Your task to perform on an android device: remove spam from my inbox in the gmail app Image 0: 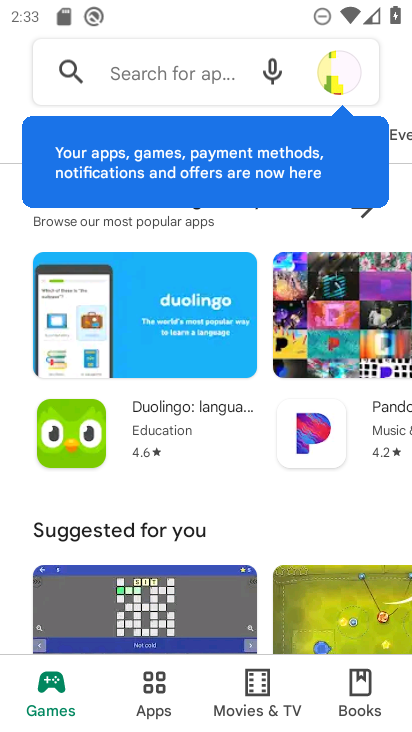
Step 0: drag from (194, 595) to (186, 219)
Your task to perform on an android device: remove spam from my inbox in the gmail app Image 1: 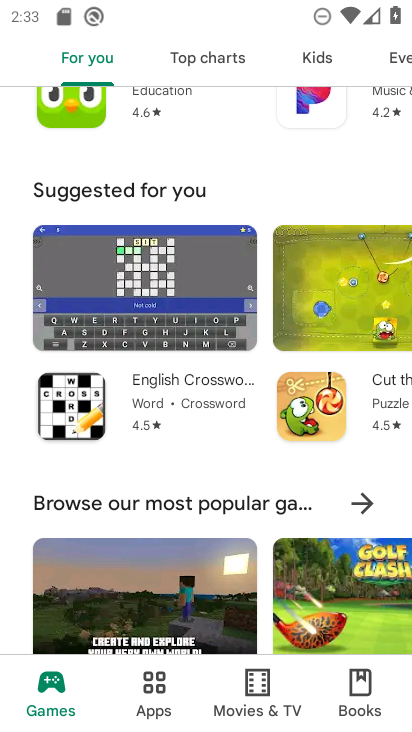
Step 1: drag from (187, 194) to (298, 633)
Your task to perform on an android device: remove spam from my inbox in the gmail app Image 2: 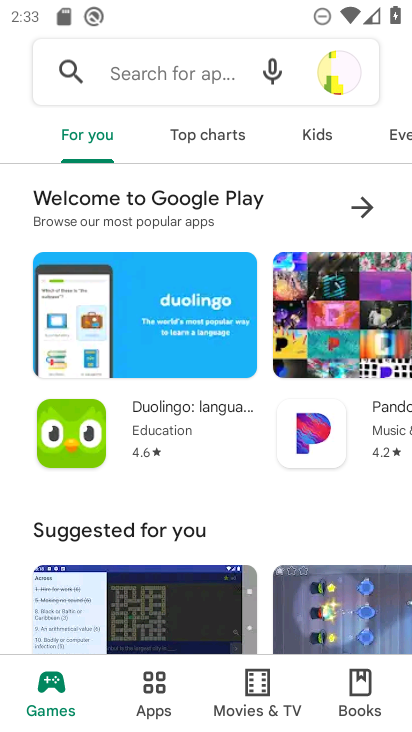
Step 2: press home button
Your task to perform on an android device: remove spam from my inbox in the gmail app Image 3: 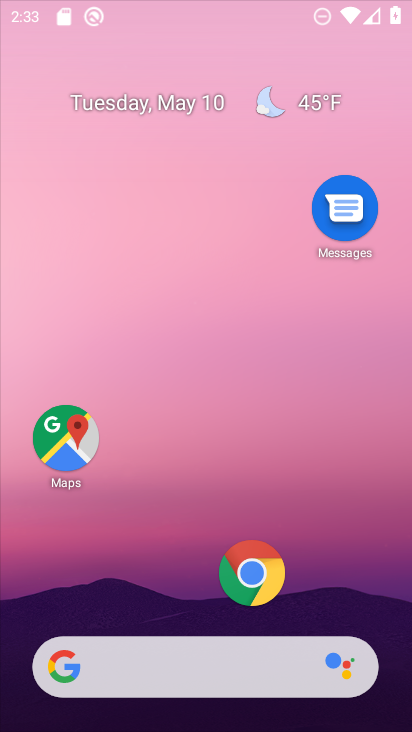
Step 3: drag from (188, 644) to (249, 244)
Your task to perform on an android device: remove spam from my inbox in the gmail app Image 4: 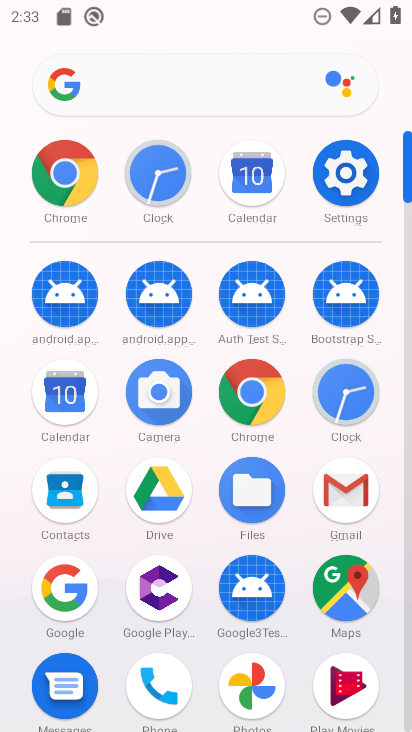
Step 4: click (334, 507)
Your task to perform on an android device: remove spam from my inbox in the gmail app Image 5: 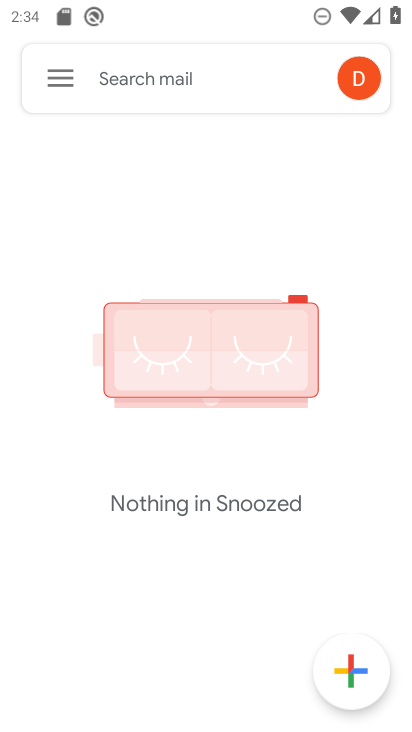
Step 5: drag from (154, 489) to (211, 226)
Your task to perform on an android device: remove spam from my inbox in the gmail app Image 6: 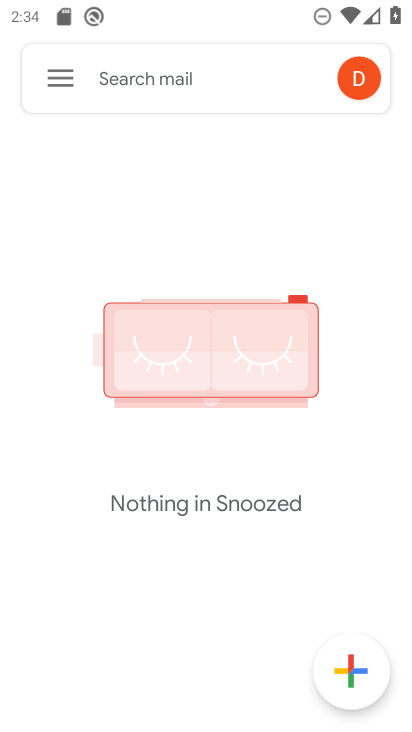
Step 6: click (43, 77)
Your task to perform on an android device: remove spam from my inbox in the gmail app Image 7: 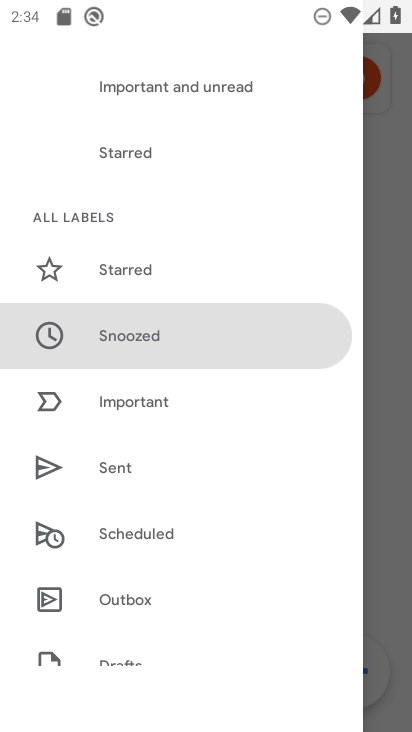
Step 7: drag from (194, 627) to (271, 238)
Your task to perform on an android device: remove spam from my inbox in the gmail app Image 8: 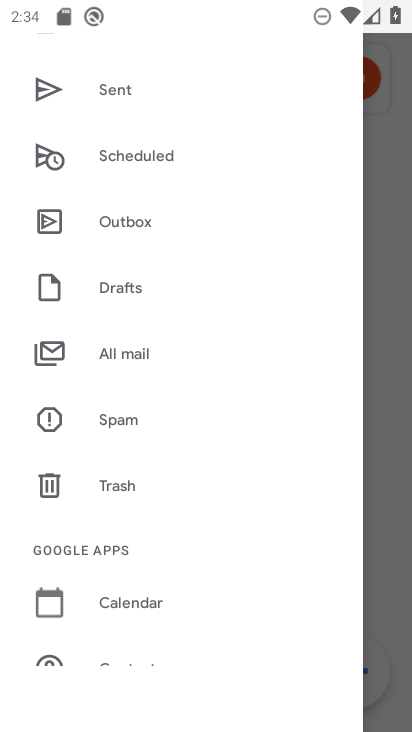
Step 8: drag from (132, 637) to (218, 319)
Your task to perform on an android device: remove spam from my inbox in the gmail app Image 9: 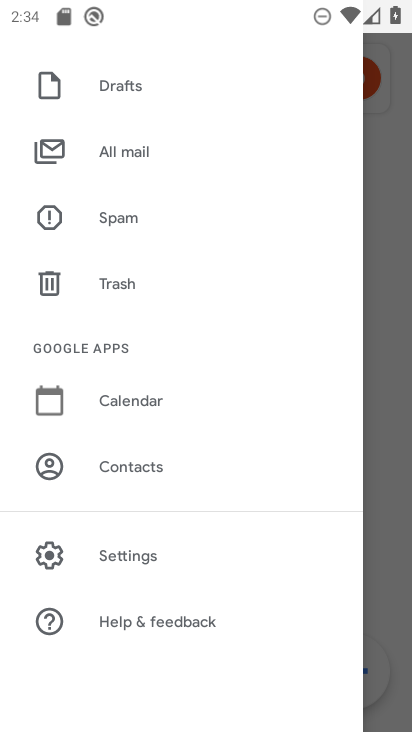
Step 9: click (163, 559)
Your task to perform on an android device: remove spam from my inbox in the gmail app Image 10: 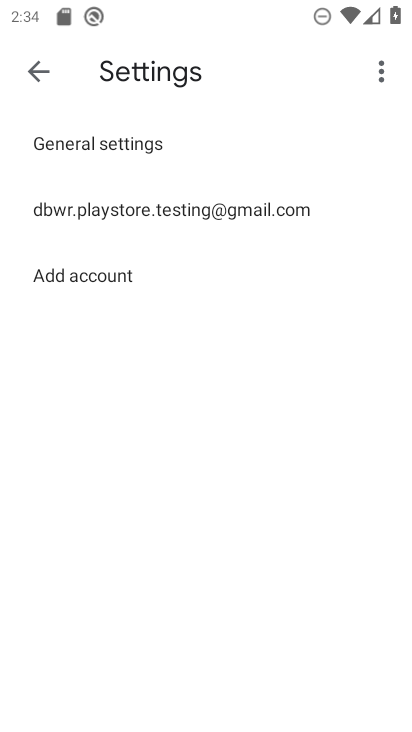
Step 10: click (28, 76)
Your task to perform on an android device: remove spam from my inbox in the gmail app Image 11: 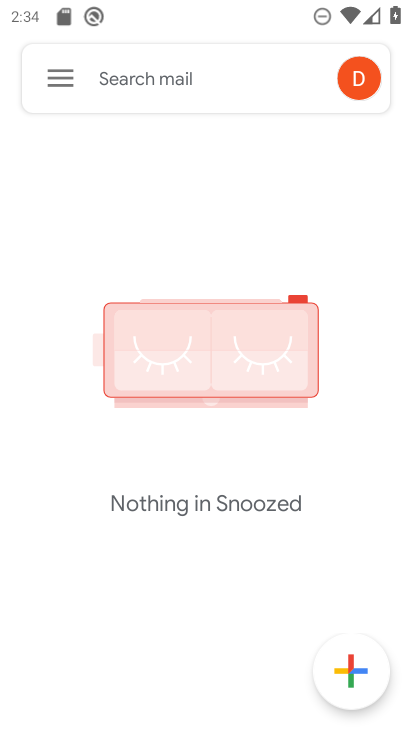
Step 11: click (50, 66)
Your task to perform on an android device: remove spam from my inbox in the gmail app Image 12: 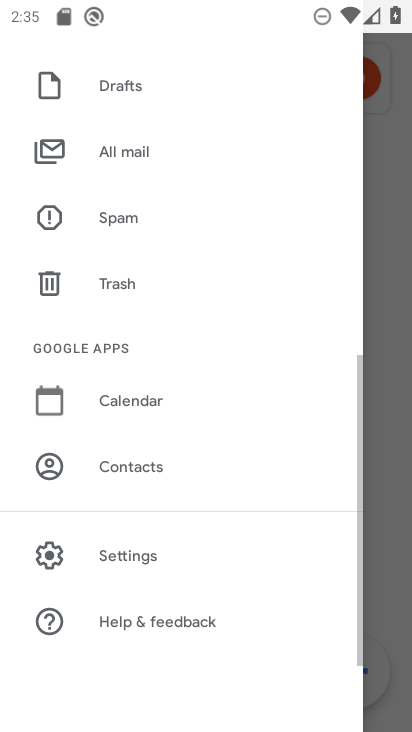
Step 12: click (137, 206)
Your task to perform on an android device: remove spam from my inbox in the gmail app Image 13: 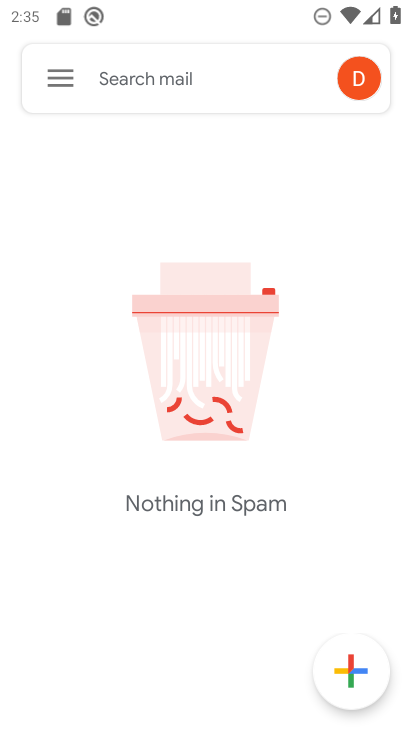
Step 13: task complete